Your task to perform on an android device: open a new tab in the chrome app Image 0: 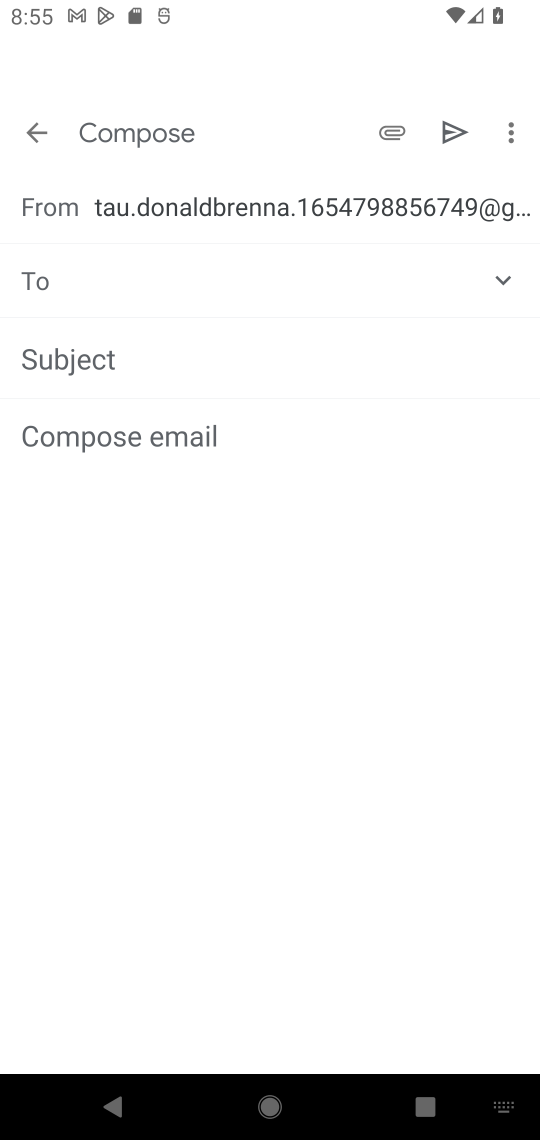
Step 0: press home button
Your task to perform on an android device: open a new tab in the chrome app Image 1: 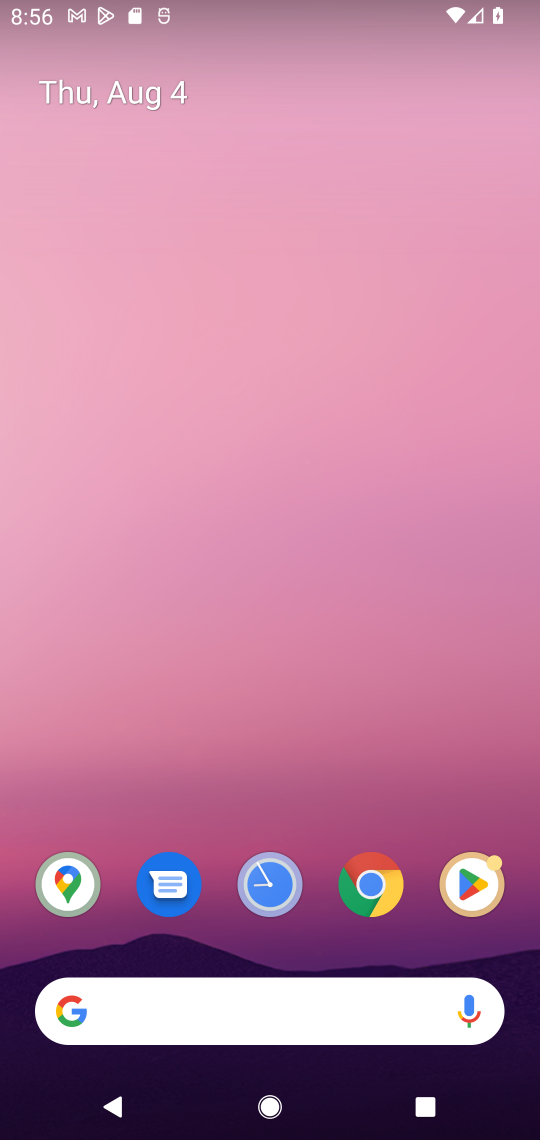
Step 1: click (358, 889)
Your task to perform on an android device: open a new tab in the chrome app Image 2: 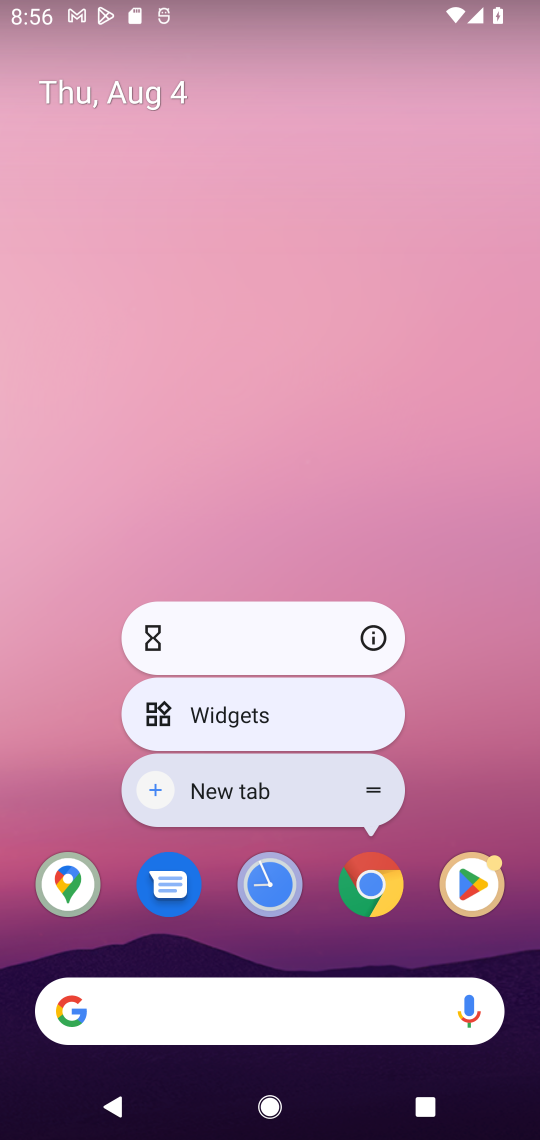
Step 2: click (358, 889)
Your task to perform on an android device: open a new tab in the chrome app Image 3: 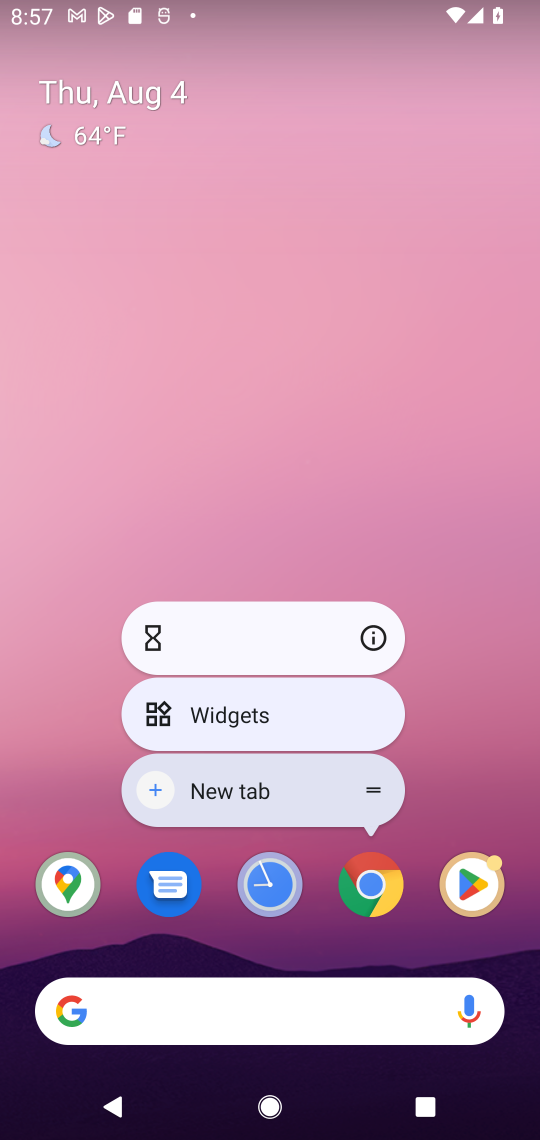
Step 3: click (356, 880)
Your task to perform on an android device: open a new tab in the chrome app Image 4: 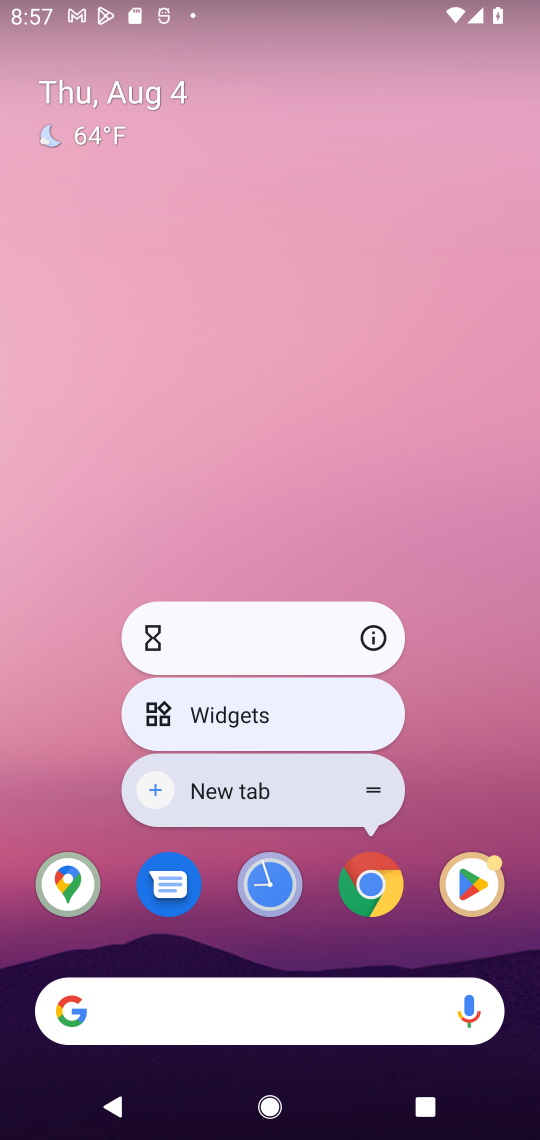
Step 4: click (356, 880)
Your task to perform on an android device: open a new tab in the chrome app Image 5: 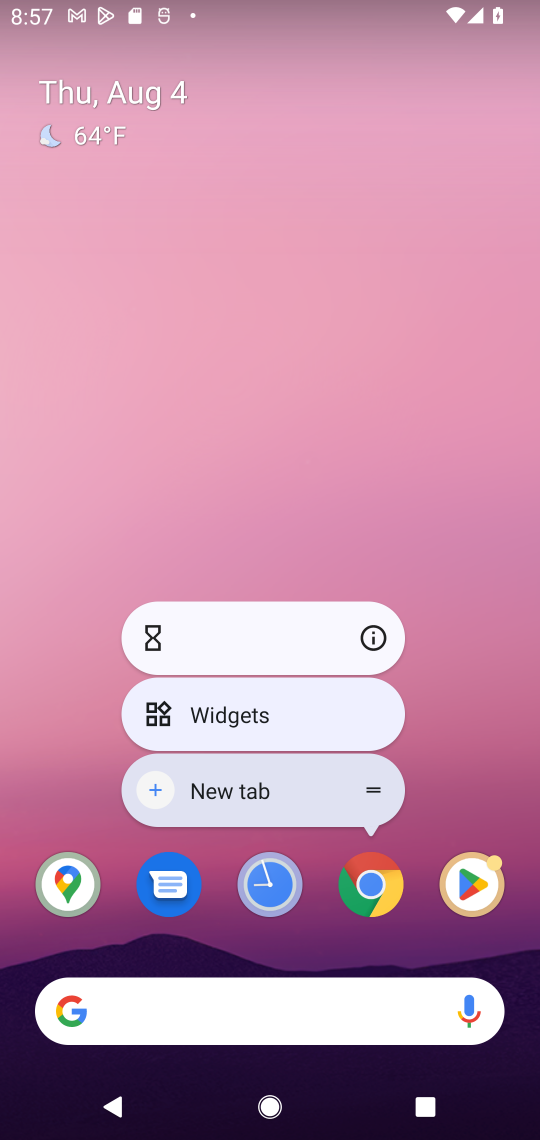
Step 5: click (356, 880)
Your task to perform on an android device: open a new tab in the chrome app Image 6: 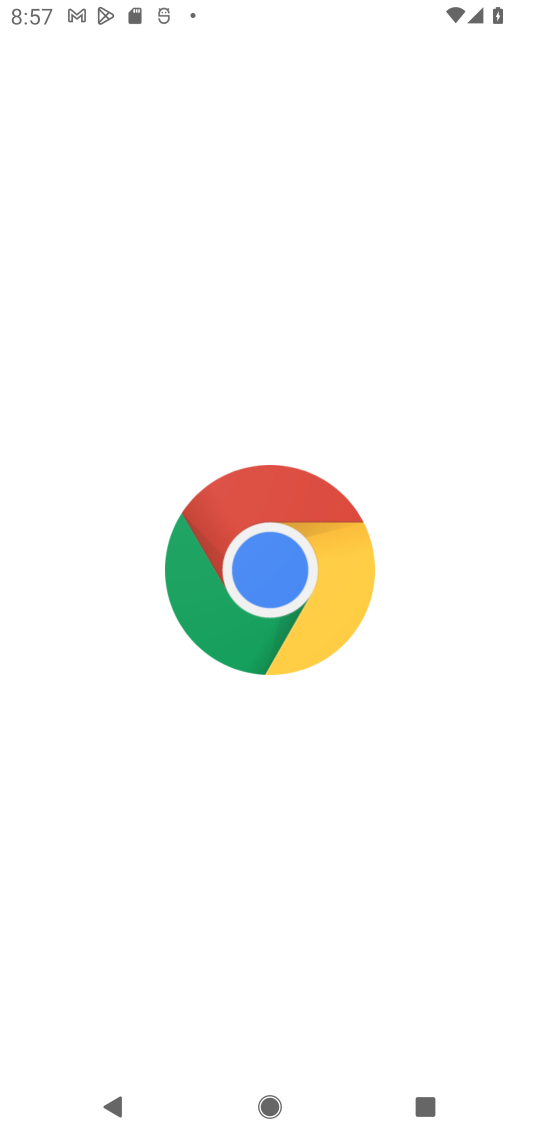
Step 6: click (364, 904)
Your task to perform on an android device: open a new tab in the chrome app Image 7: 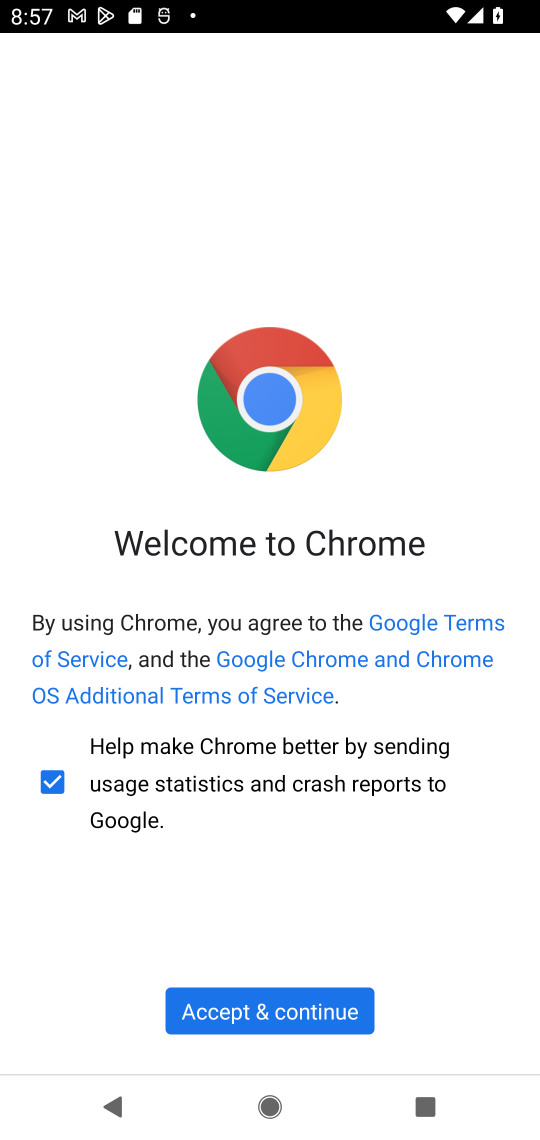
Step 7: click (304, 1017)
Your task to perform on an android device: open a new tab in the chrome app Image 8: 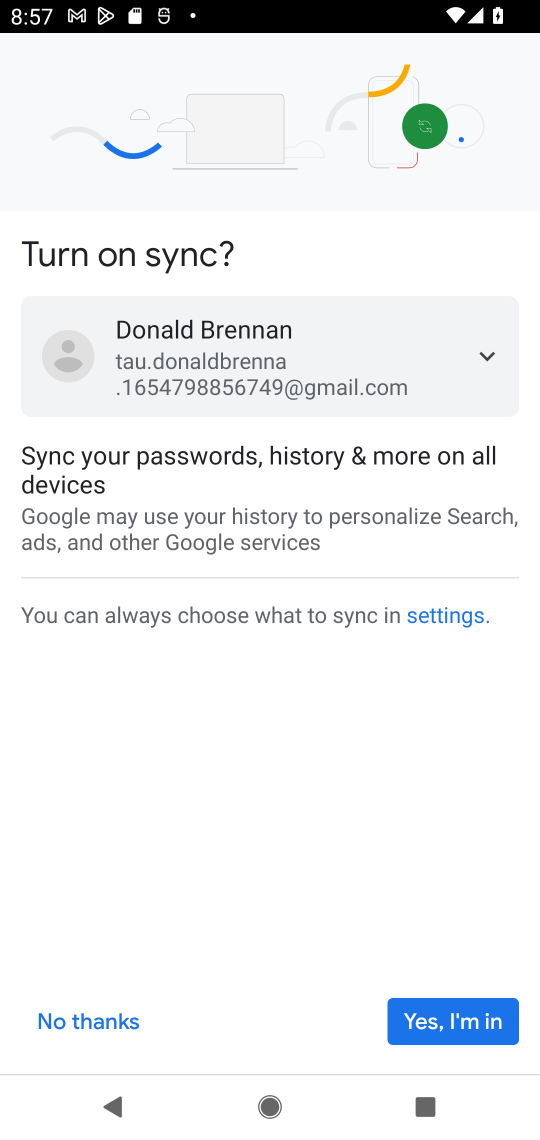
Step 8: click (479, 1020)
Your task to perform on an android device: open a new tab in the chrome app Image 9: 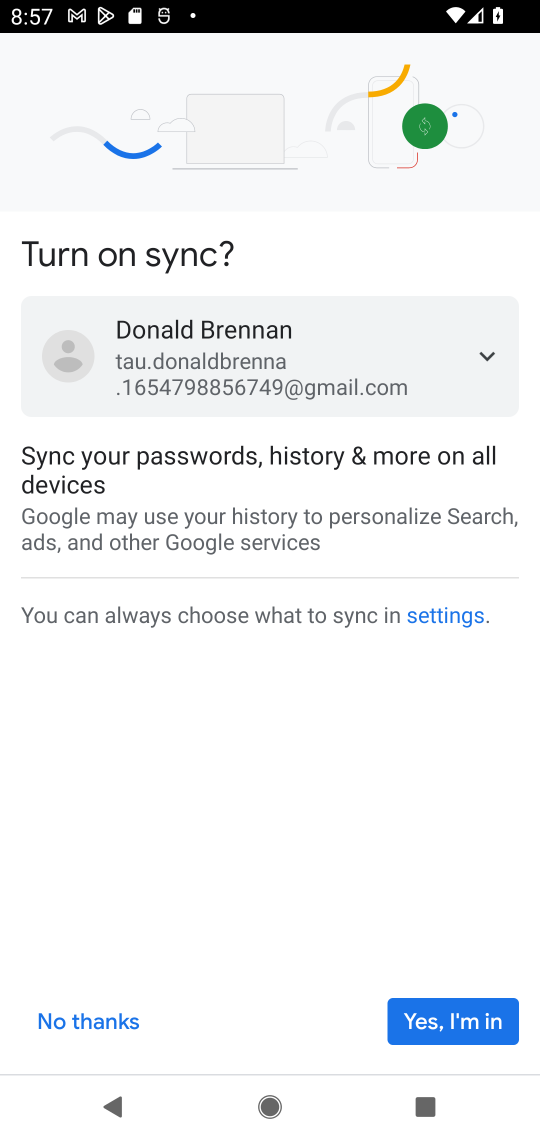
Step 9: click (463, 1015)
Your task to perform on an android device: open a new tab in the chrome app Image 10: 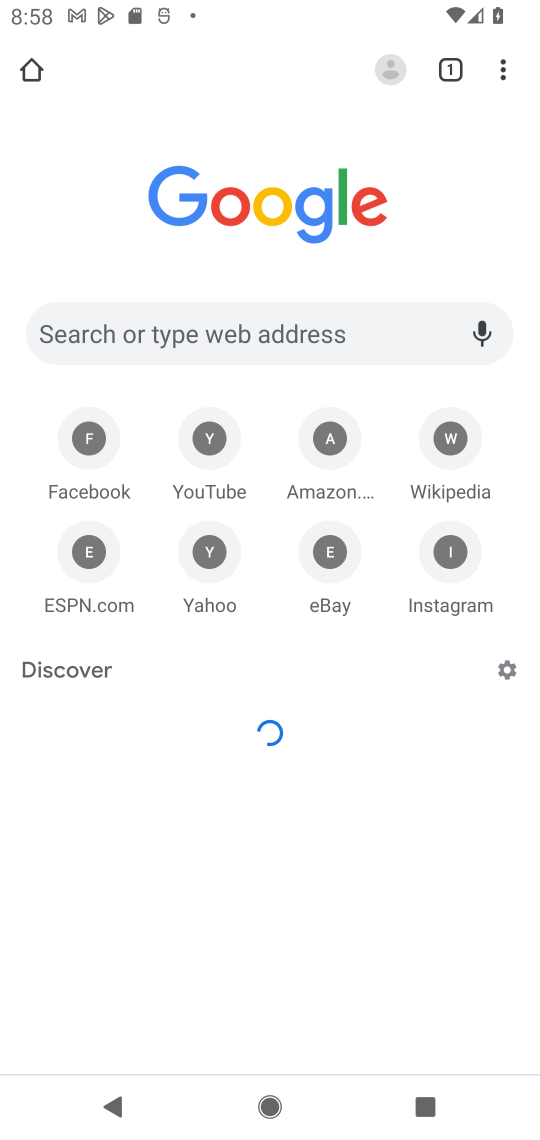
Step 10: click (507, 59)
Your task to perform on an android device: open a new tab in the chrome app Image 11: 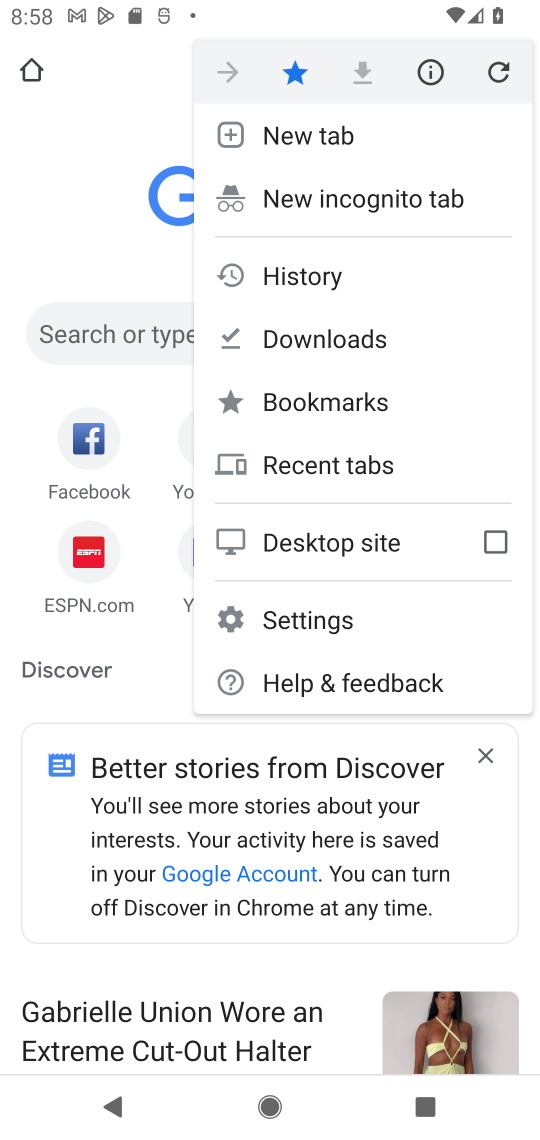
Step 11: click (337, 139)
Your task to perform on an android device: open a new tab in the chrome app Image 12: 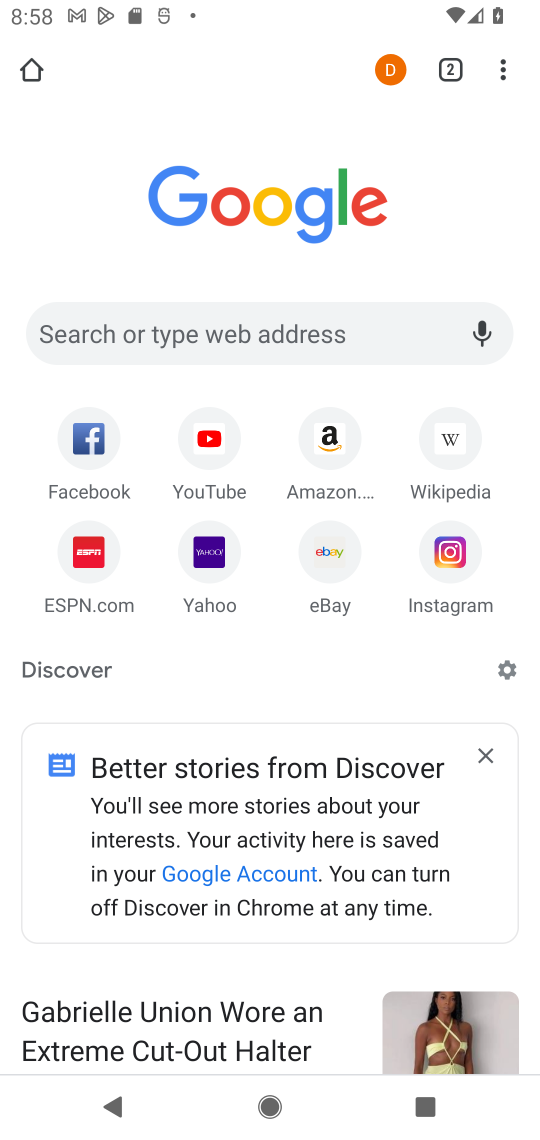
Step 12: task complete